Your task to perform on an android device: toggle priority inbox in the gmail app Image 0: 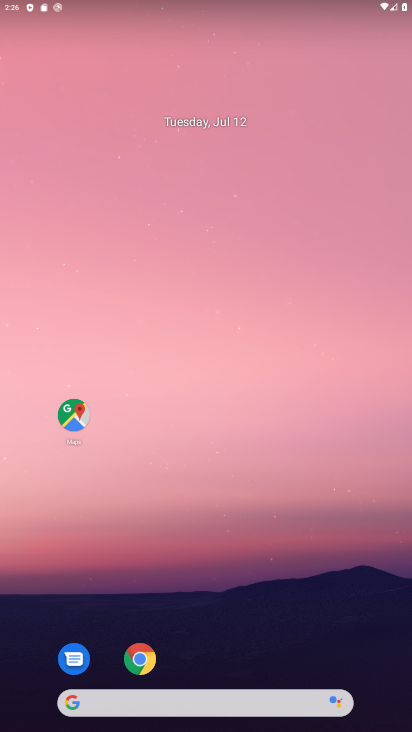
Step 0: drag from (210, 699) to (210, 370)
Your task to perform on an android device: toggle priority inbox in the gmail app Image 1: 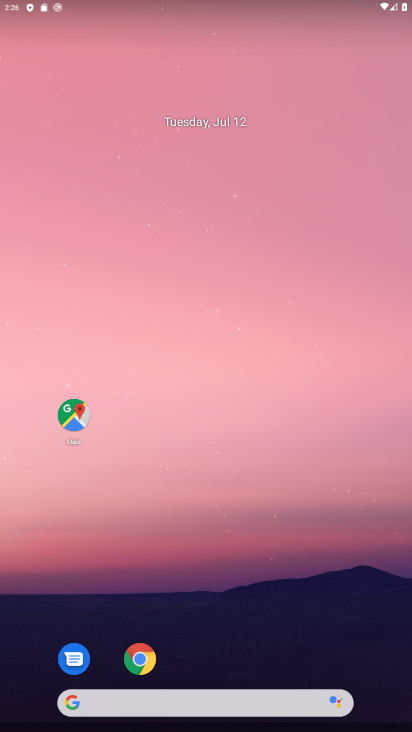
Step 1: drag from (175, 685) to (165, 67)
Your task to perform on an android device: toggle priority inbox in the gmail app Image 2: 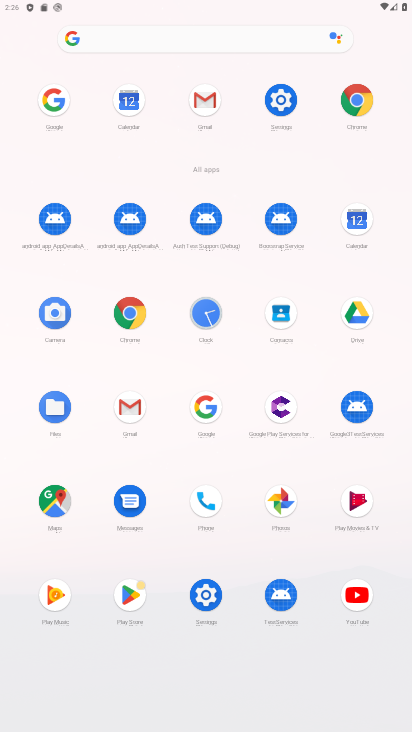
Step 2: click (128, 419)
Your task to perform on an android device: toggle priority inbox in the gmail app Image 3: 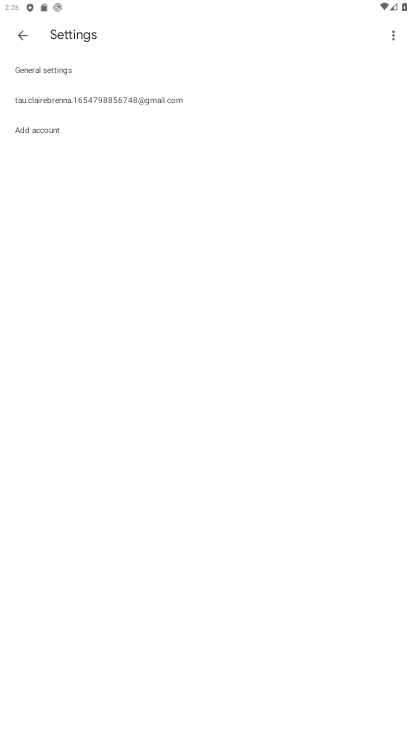
Step 3: click (42, 101)
Your task to perform on an android device: toggle priority inbox in the gmail app Image 4: 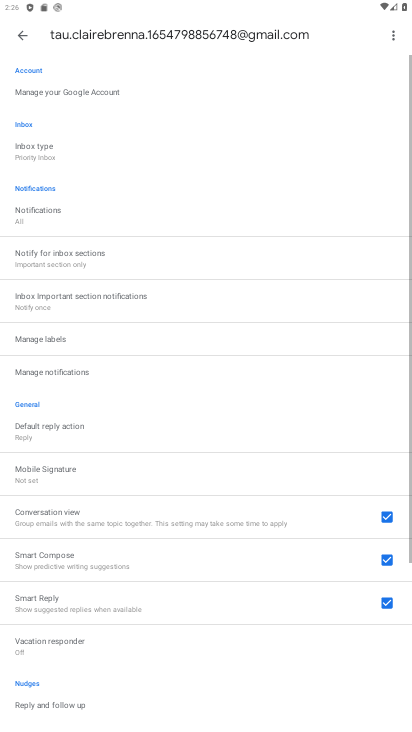
Step 4: click (27, 156)
Your task to perform on an android device: toggle priority inbox in the gmail app Image 5: 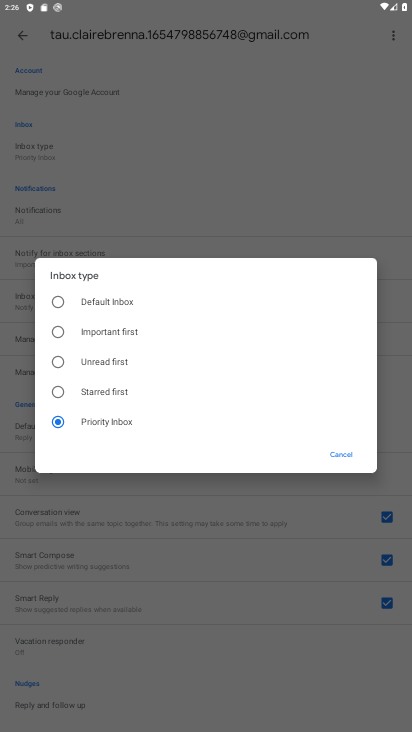
Step 5: click (90, 337)
Your task to perform on an android device: toggle priority inbox in the gmail app Image 6: 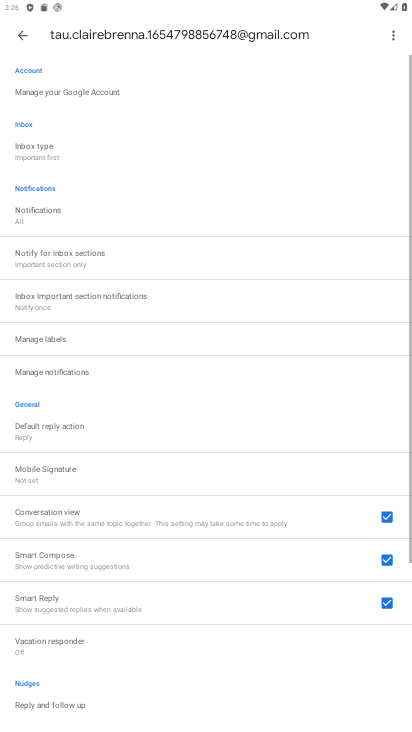
Step 6: task complete